Your task to perform on an android device: Look up the best rated coffee maker on Lowe's. Image 0: 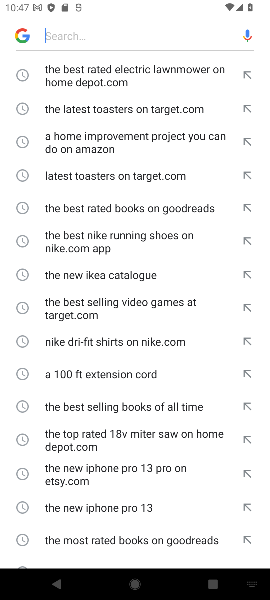
Step 0: type "the best rated coffee maker on Lowe's."
Your task to perform on an android device: Look up the best rated coffee maker on Lowe's. Image 1: 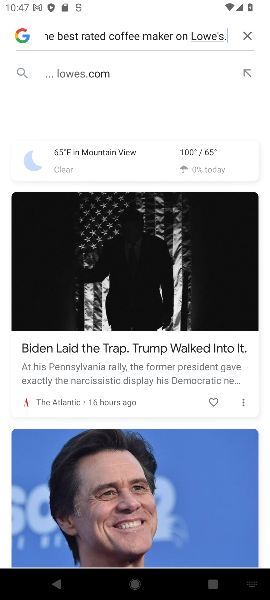
Step 1: click (88, 75)
Your task to perform on an android device: Look up the best rated coffee maker on Lowe's. Image 2: 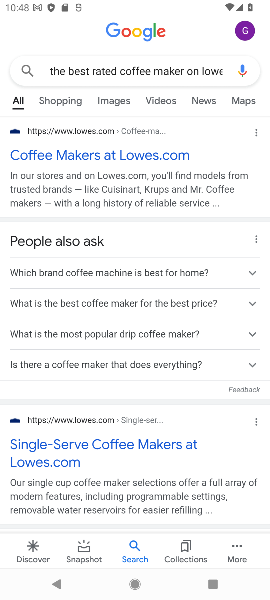
Step 2: task complete